Your task to perform on an android device: turn on wifi Image 0: 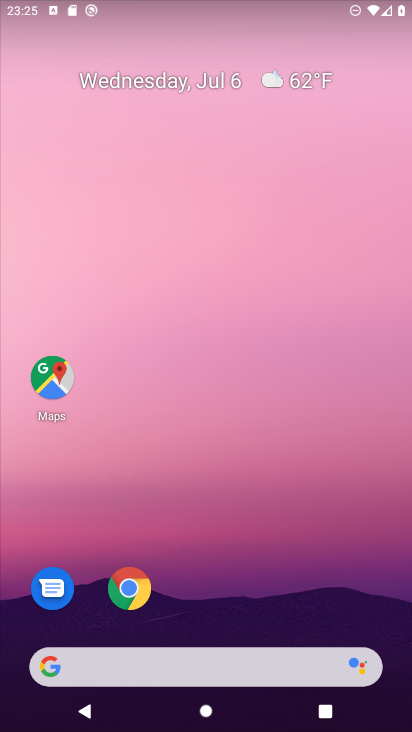
Step 0: drag from (377, 604) to (326, 95)
Your task to perform on an android device: turn on wifi Image 1: 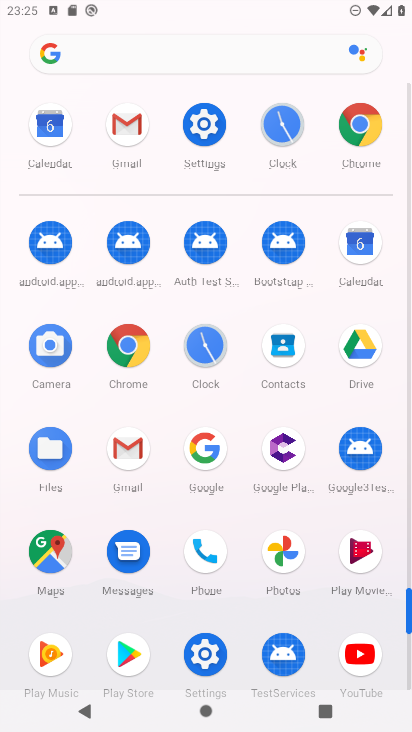
Step 1: click (204, 655)
Your task to perform on an android device: turn on wifi Image 2: 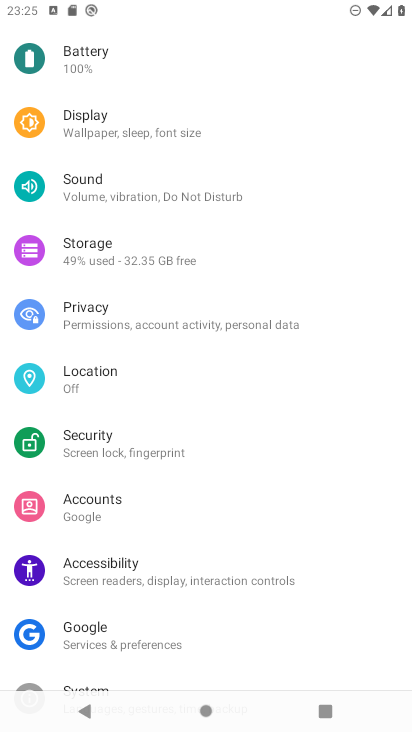
Step 2: drag from (338, 124) to (329, 359)
Your task to perform on an android device: turn on wifi Image 3: 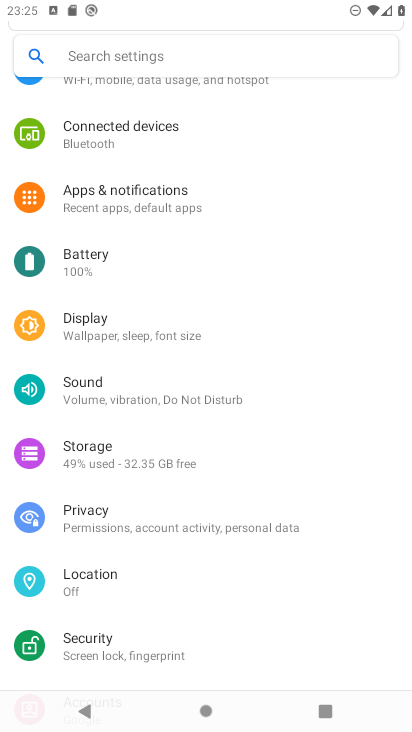
Step 3: drag from (303, 248) to (299, 512)
Your task to perform on an android device: turn on wifi Image 4: 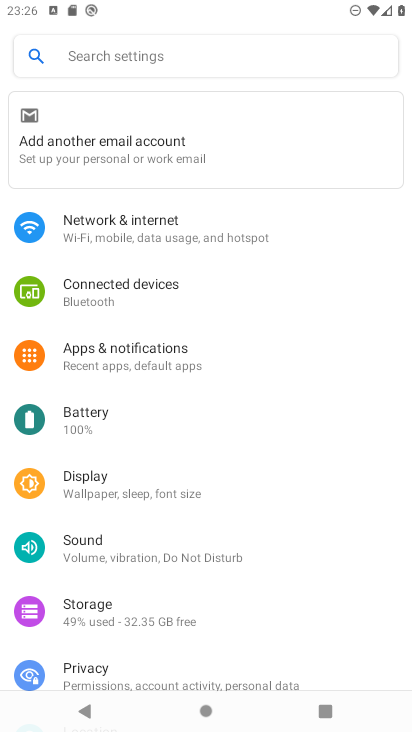
Step 4: click (108, 223)
Your task to perform on an android device: turn on wifi Image 5: 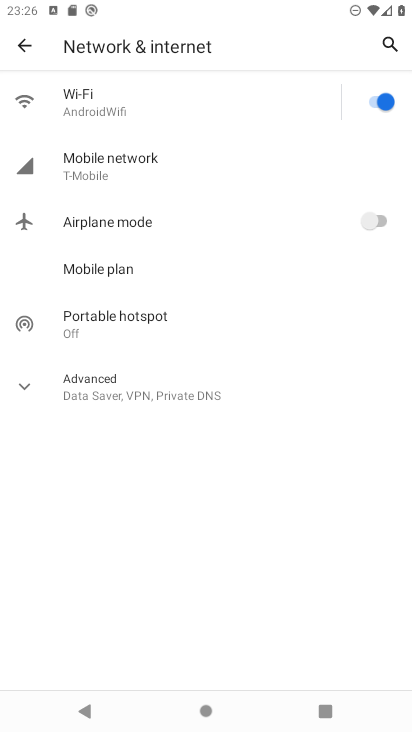
Step 5: task complete